Your task to perform on an android device: open app "Paramount+ | Peak Streaming" (install if not already installed) Image 0: 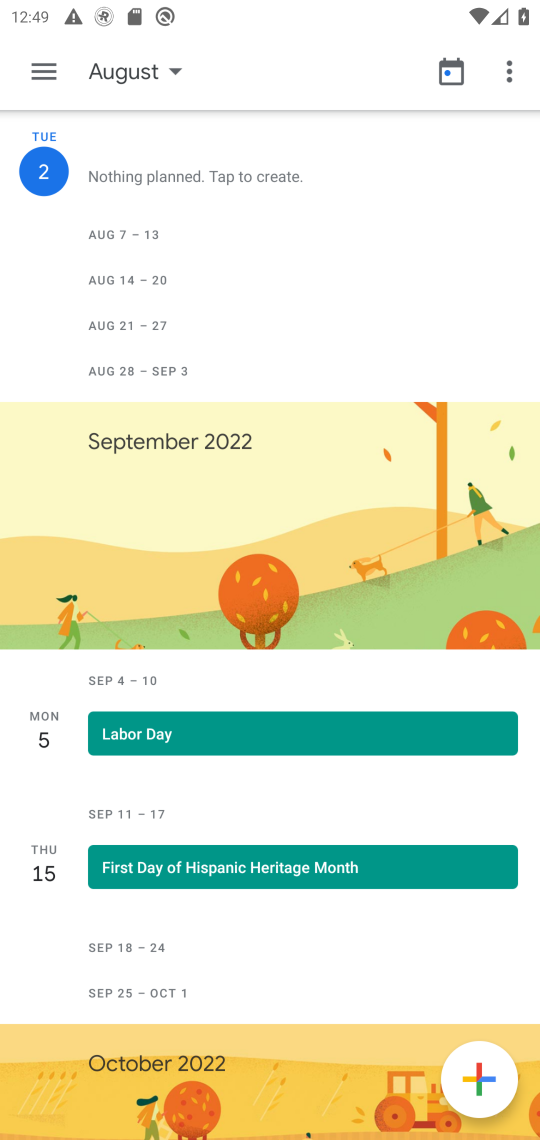
Step 0: press home button
Your task to perform on an android device: open app "Paramount+ | Peak Streaming" (install if not already installed) Image 1: 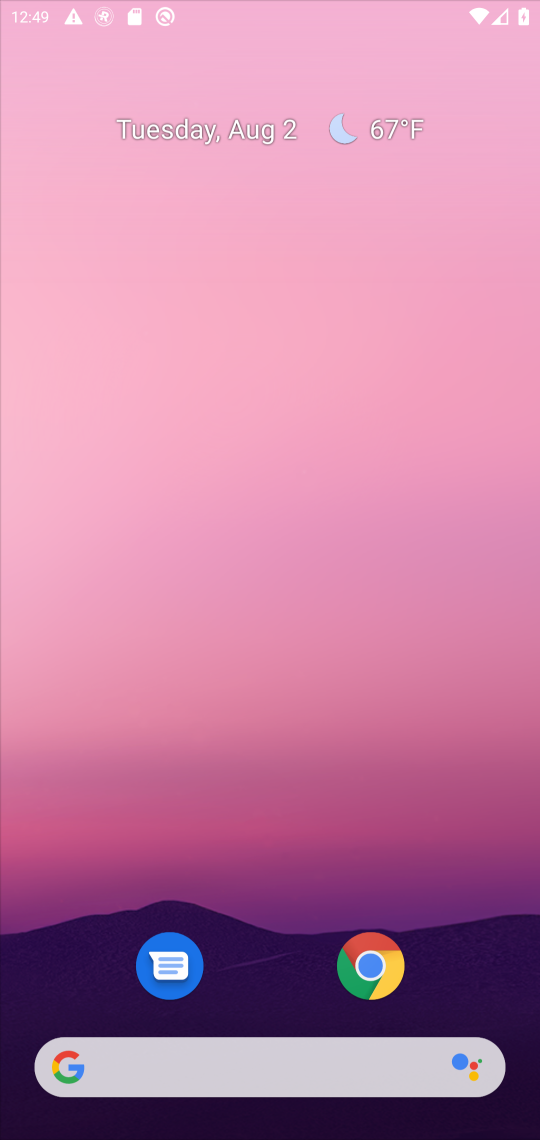
Step 1: press home button
Your task to perform on an android device: open app "Paramount+ | Peak Streaming" (install if not already installed) Image 2: 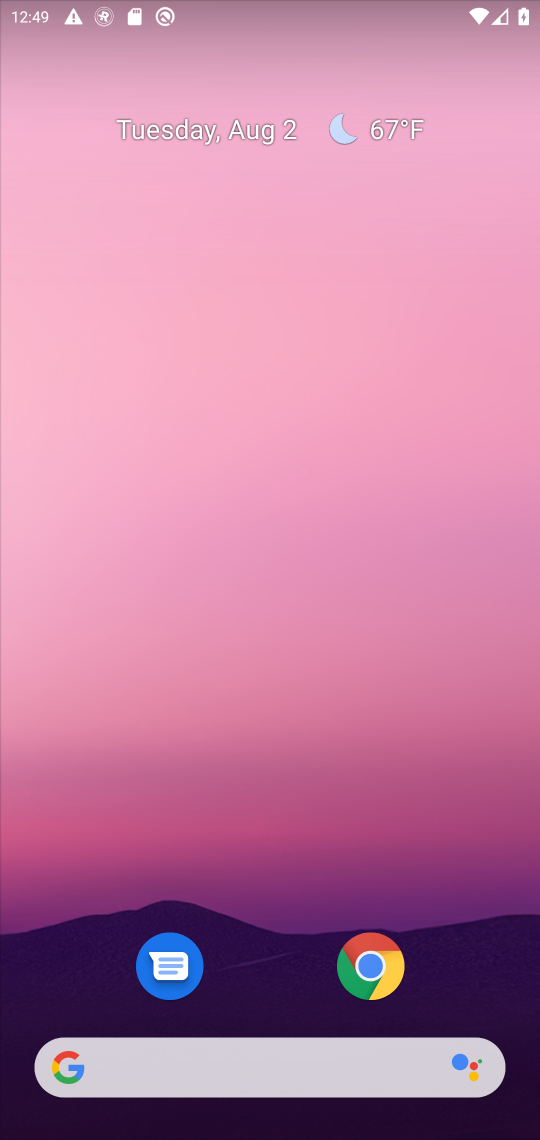
Step 2: drag from (266, 961) to (320, 67)
Your task to perform on an android device: open app "Paramount+ | Peak Streaming" (install if not already installed) Image 3: 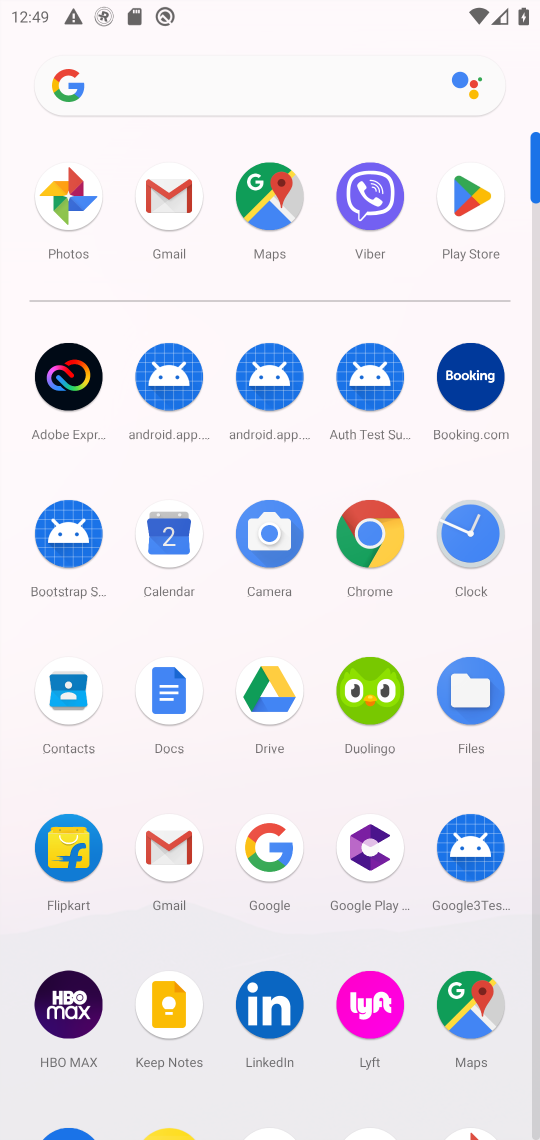
Step 3: click (475, 203)
Your task to perform on an android device: open app "Paramount+ | Peak Streaming" (install if not already installed) Image 4: 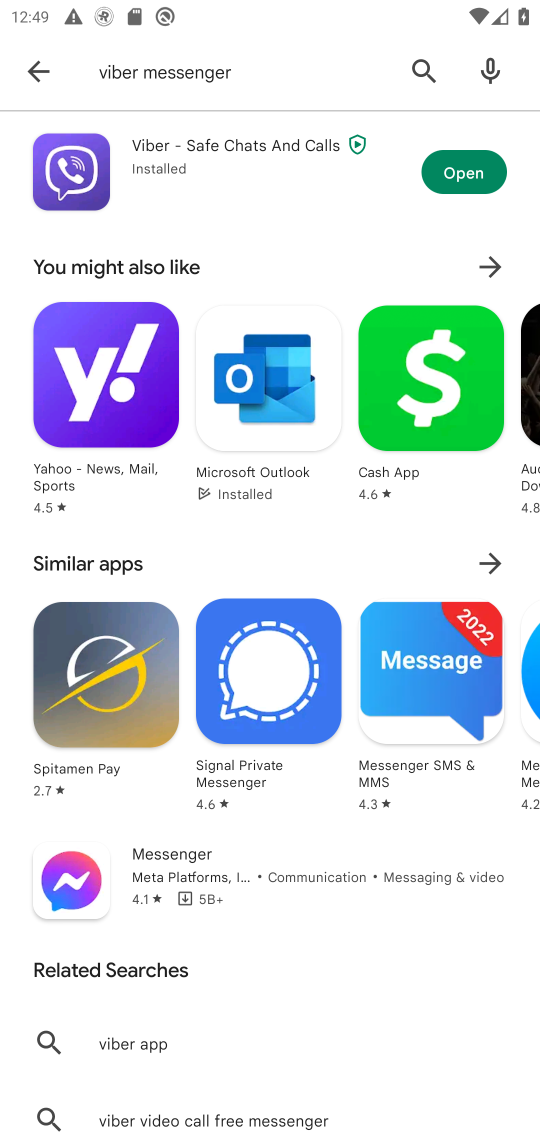
Step 4: click (423, 60)
Your task to perform on an android device: open app "Paramount+ | Peak Streaming" (install if not already installed) Image 5: 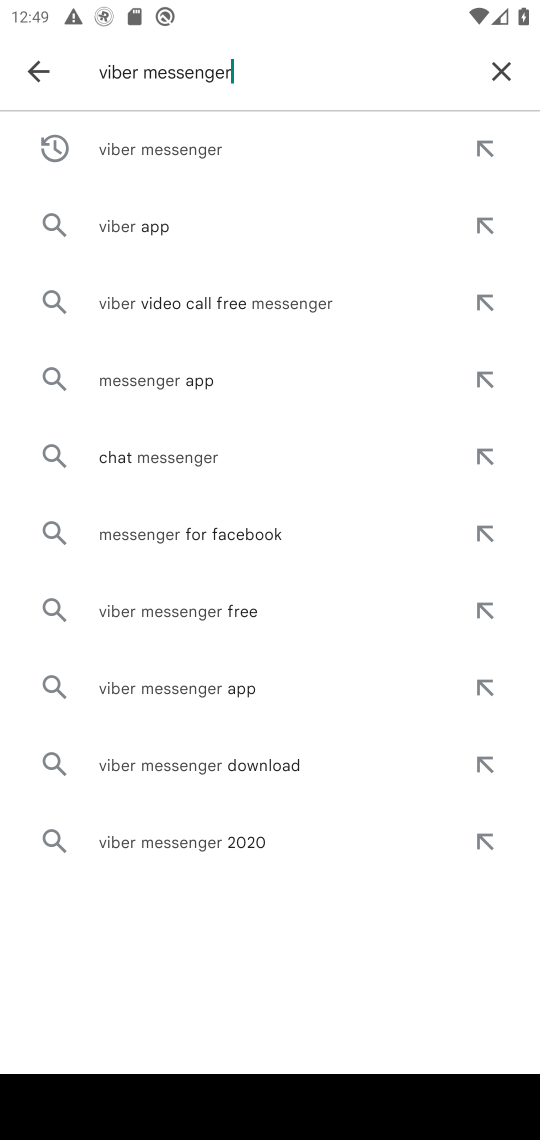
Step 5: click (510, 65)
Your task to perform on an android device: open app "Paramount+ | Peak Streaming" (install if not already installed) Image 6: 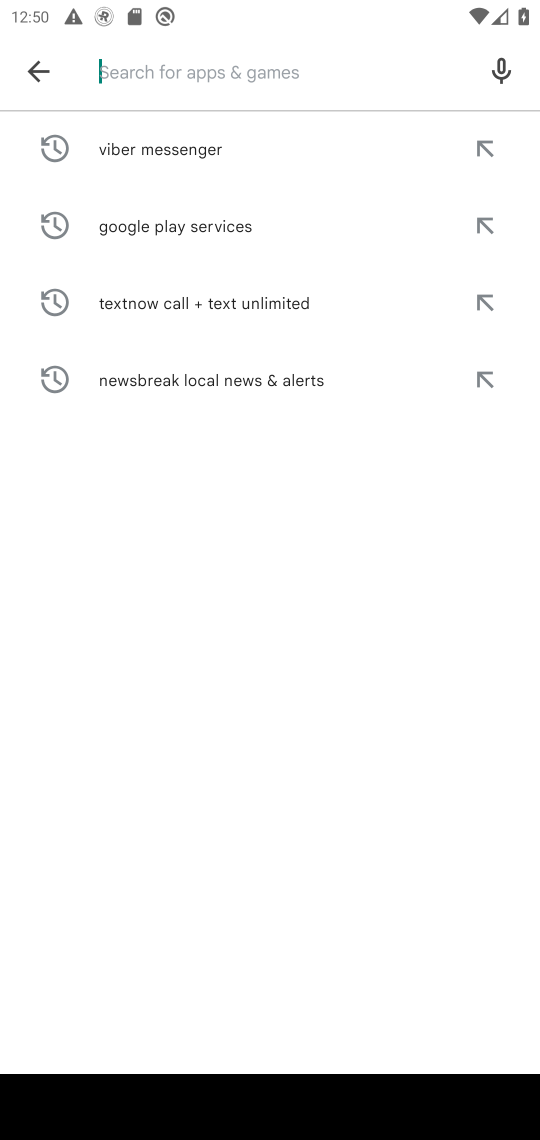
Step 6: click (261, 72)
Your task to perform on an android device: open app "Paramount+ | Peak Streaming" (install if not already installed) Image 7: 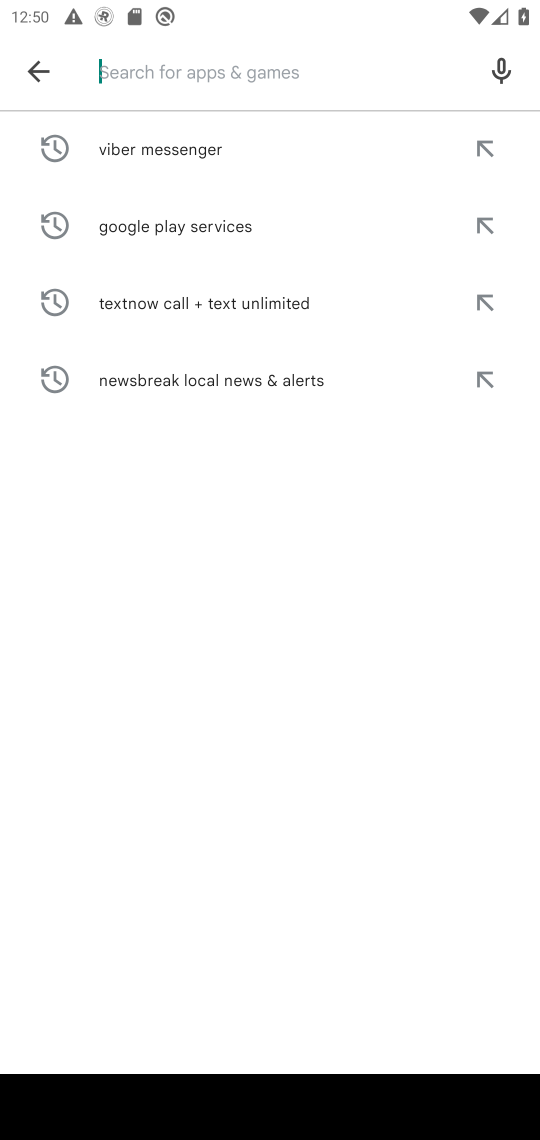
Step 7: click (211, 65)
Your task to perform on an android device: open app "Paramount+ | Peak Streaming" (install if not already installed) Image 8: 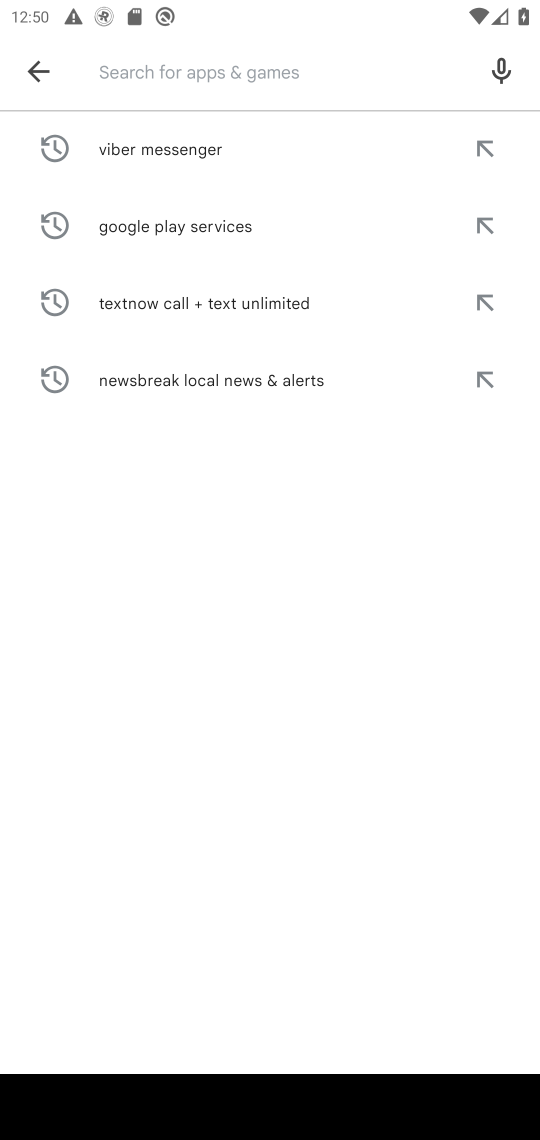
Step 8: click (224, 61)
Your task to perform on an android device: open app "Paramount+ | Peak Streaming" (install if not already installed) Image 9: 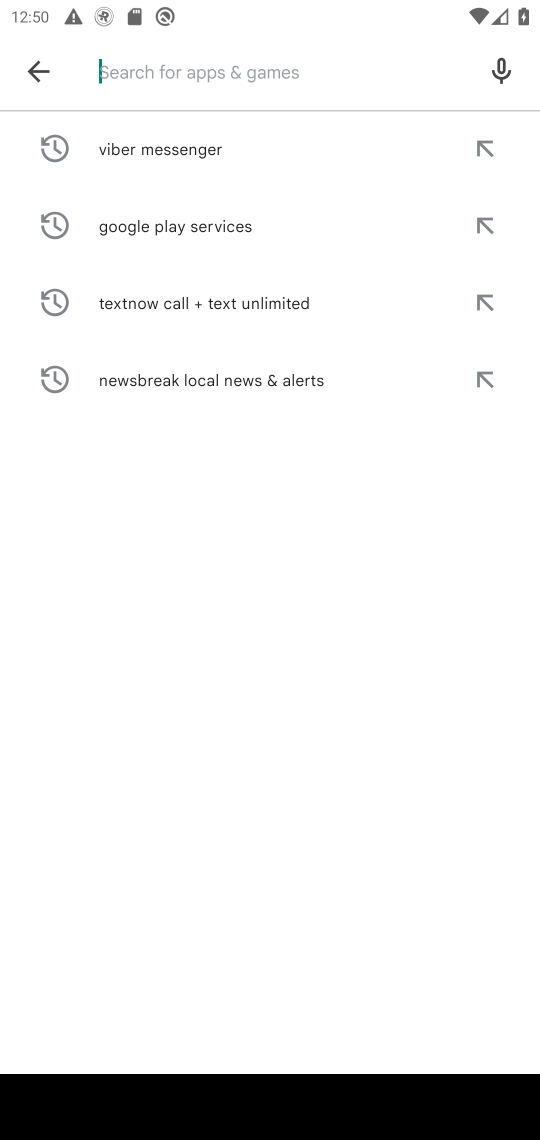
Step 9: type "Paramount+ | Peak Streaming"
Your task to perform on an android device: open app "Paramount+ | Peak Streaming" (install if not already installed) Image 10: 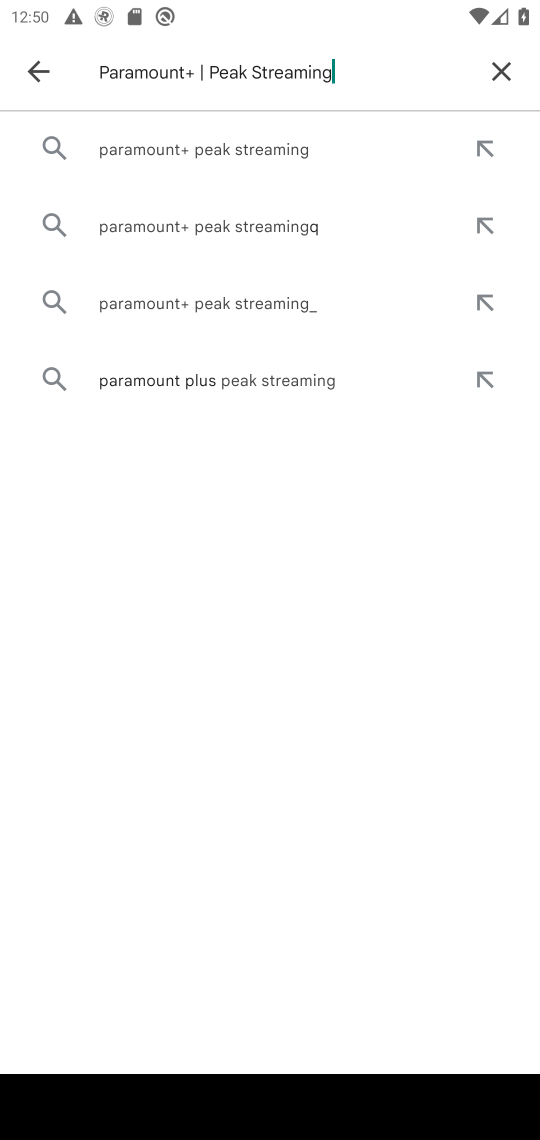
Step 10: click (290, 153)
Your task to perform on an android device: open app "Paramount+ | Peak Streaming" (install if not already installed) Image 11: 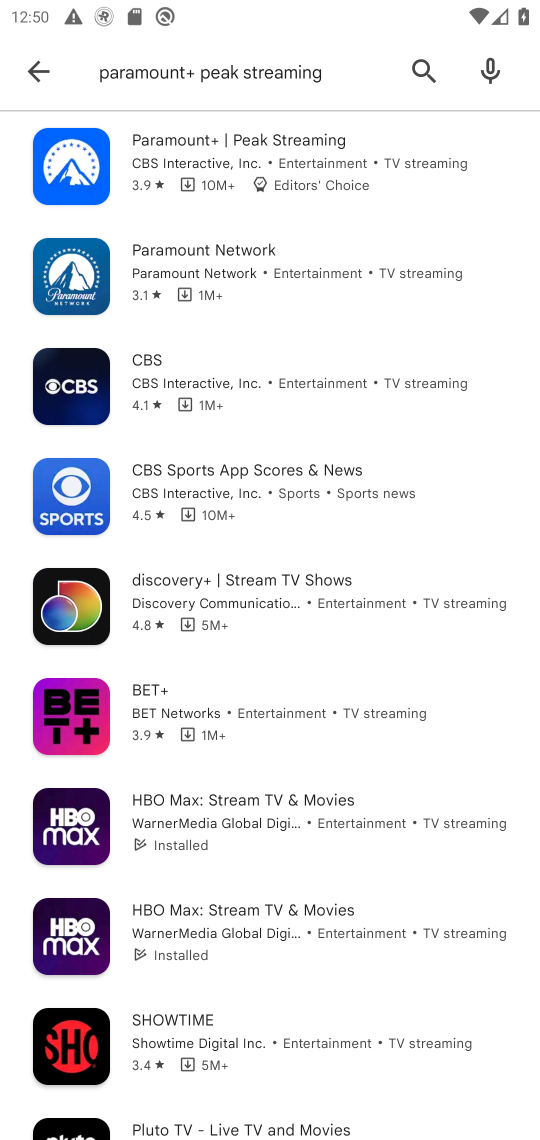
Step 11: task complete